Your task to perform on an android device: delete a single message in the gmail app Image 0: 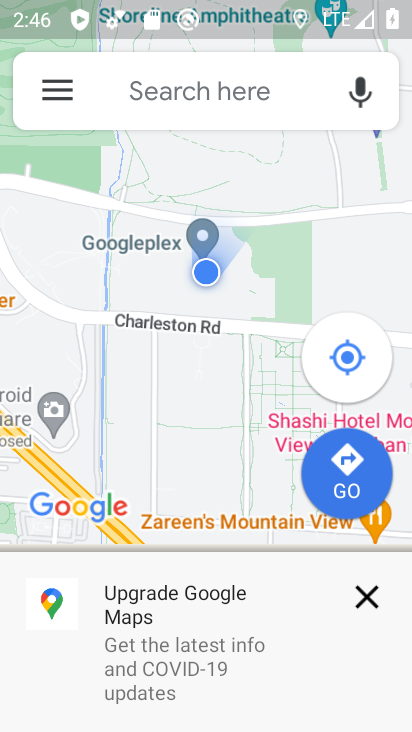
Step 0: press home button
Your task to perform on an android device: delete a single message in the gmail app Image 1: 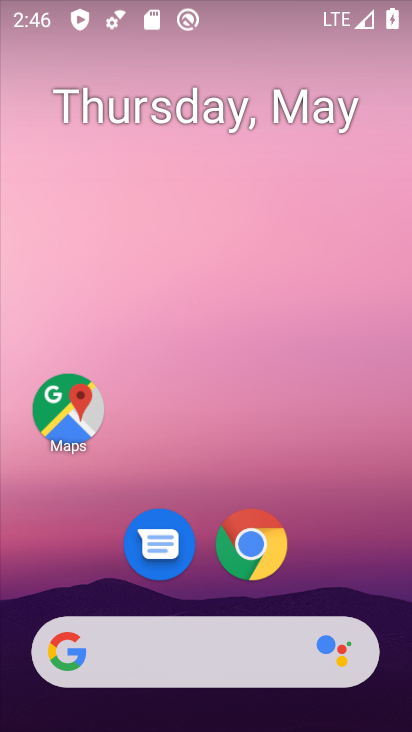
Step 1: drag from (223, 599) to (229, 39)
Your task to perform on an android device: delete a single message in the gmail app Image 2: 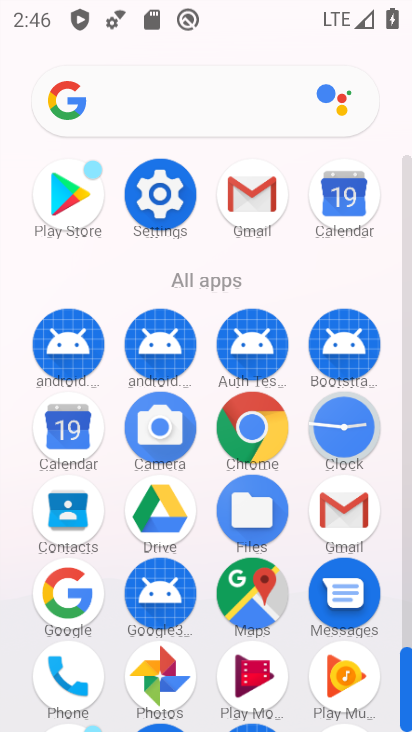
Step 2: click (261, 203)
Your task to perform on an android device: delete a single message in the gmail app Image 3: 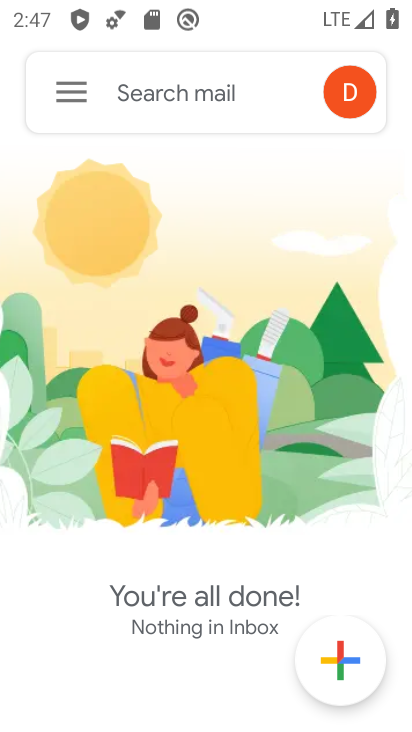
Step 3: task complete